Your task to perform on an android device: Search for the best burger restaurants on Maps Image 0: 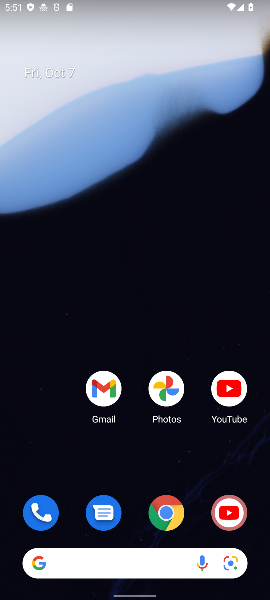
Step 0: drag from (137, 482) to (129, 150)
Your task to perform on an android device: Search for the best burger restaurants on Maps Image 1: 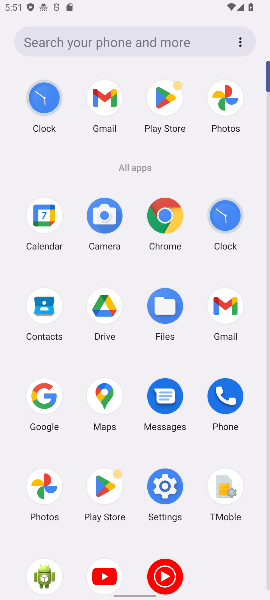
Step 1: click (103, 388)
Your task to perform on an android device: Search for the best burger restaurants on Maps Image 2: 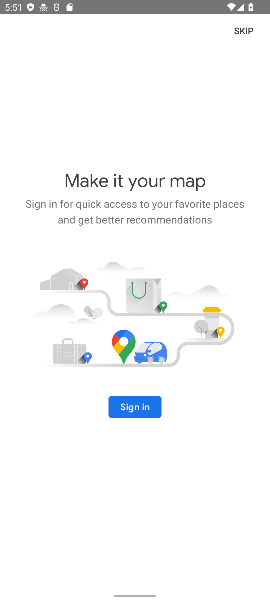
Step 2: click (246, 29)
Your task to perform on an android device: Search for the best burger restaurants on Maps Image 3: 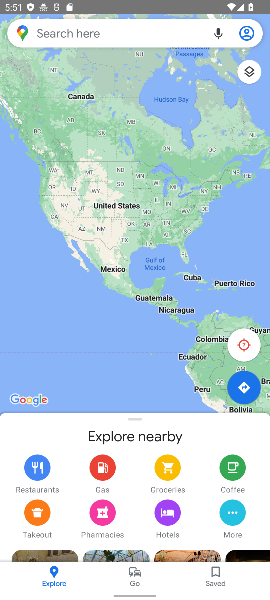
Step 3: click (98, 31)
Your task to perform on an android device: Search for the best burger restaurants on Maps Image 4: 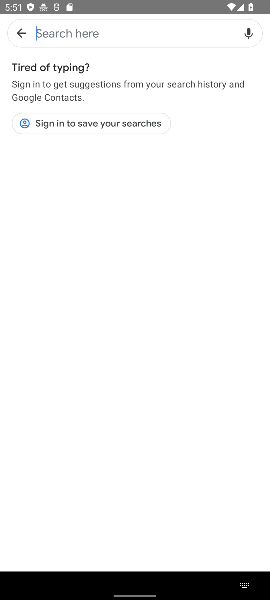
Step 4: type "best burger restaurants"
Your task to perform on an android device: Search for the best burger restaurants on Maps Image 5: 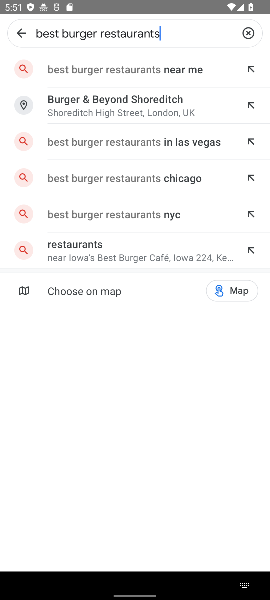
Step 5: click (104, 67)
Your task to perform on an android device: Search for the best burger restaurants on Maps Image 6: 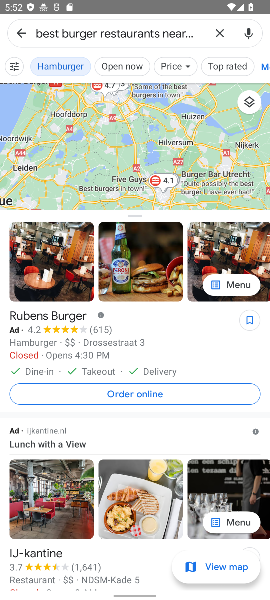
Step 6: task complete